Your task to perform on an android device: Turn on the flashlight Image 0: 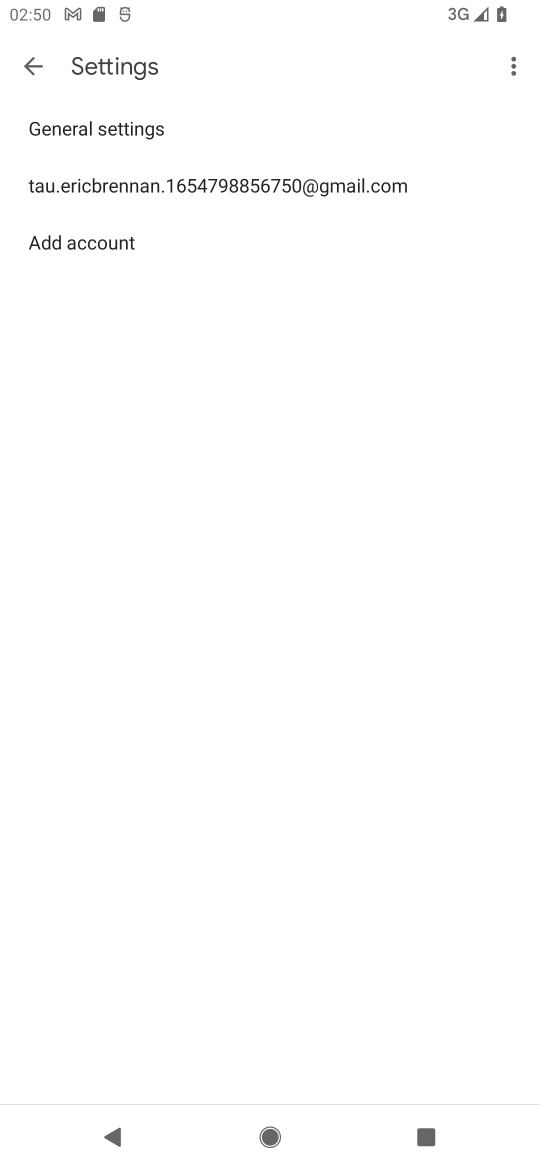
Step 0: press home button
Your task to perform on an android device: Turn on the flashlight Image 1: 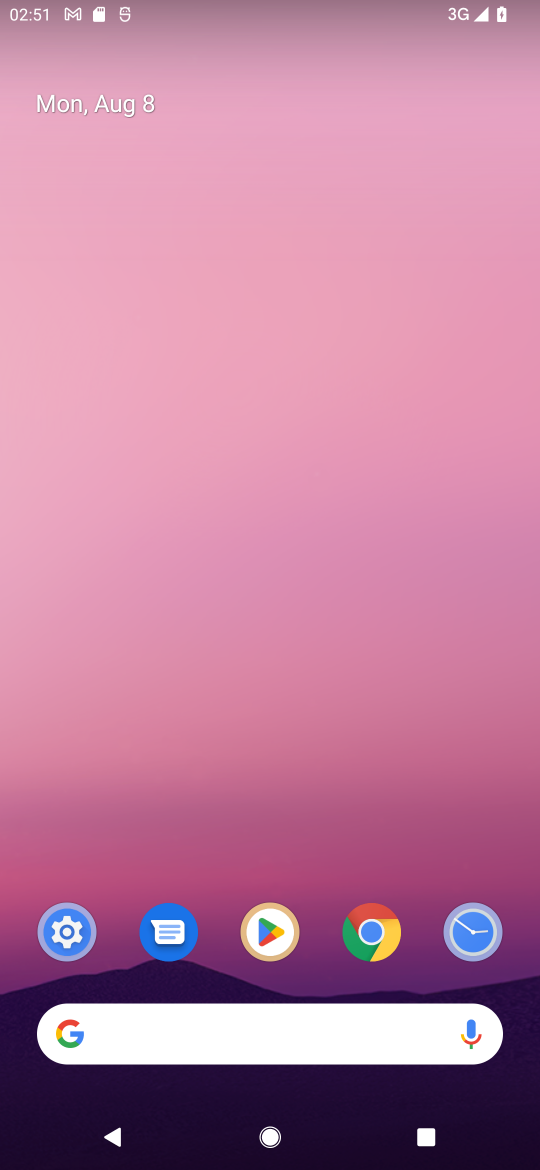
Step 1: drag from (264, 843) to (370, 45)
Your task to perform on an android device: Turn on the flashlight Image 2: 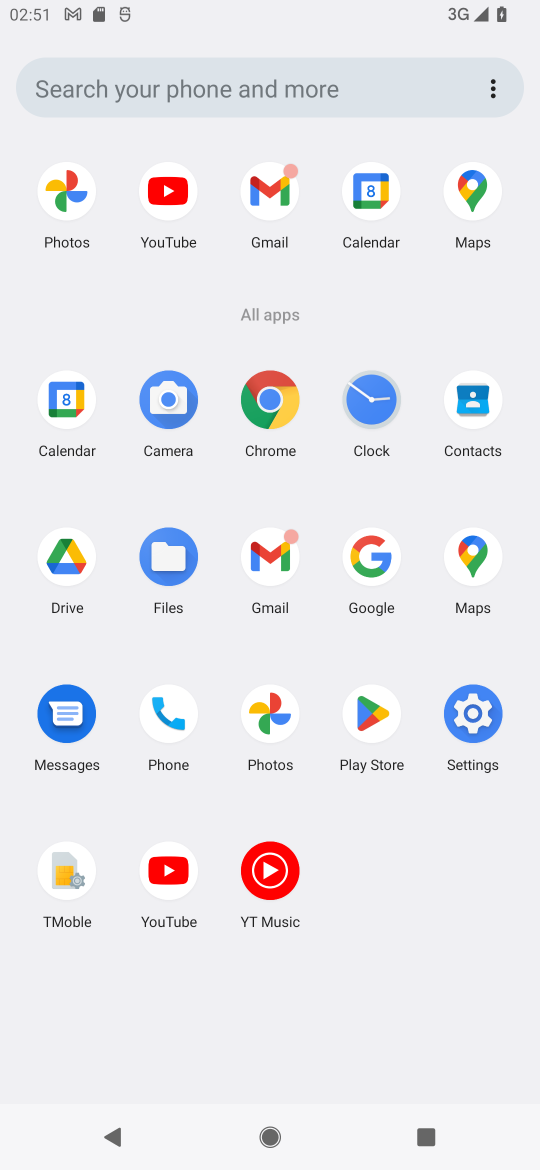
Step 2: click (471, 709)
Your task to perform on an android device: Turn on the flashlight Image 3: 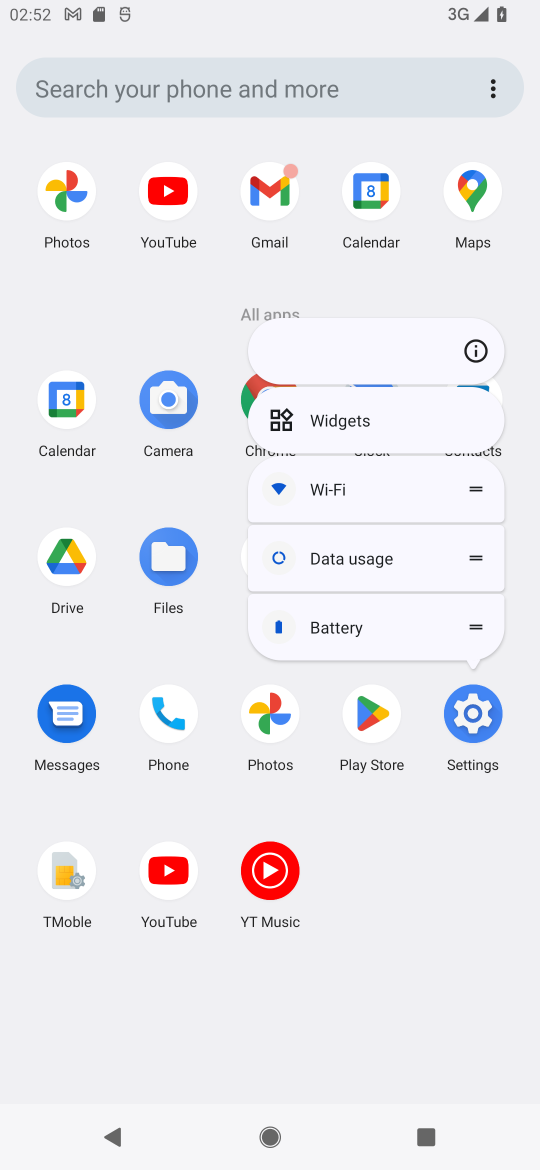
Step 3: click (469, 748)
Your task to perform on an android device: Turn on the flashlight Image 4: 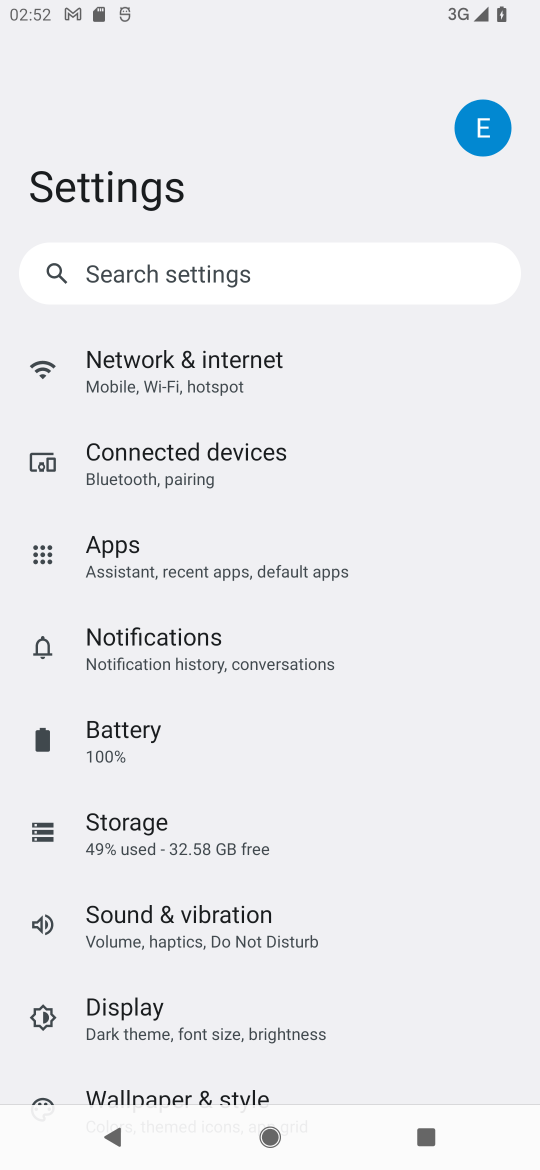
Step 4: task complete